Your task to perform on an android device: allow cookies in the chrome app Image 0: 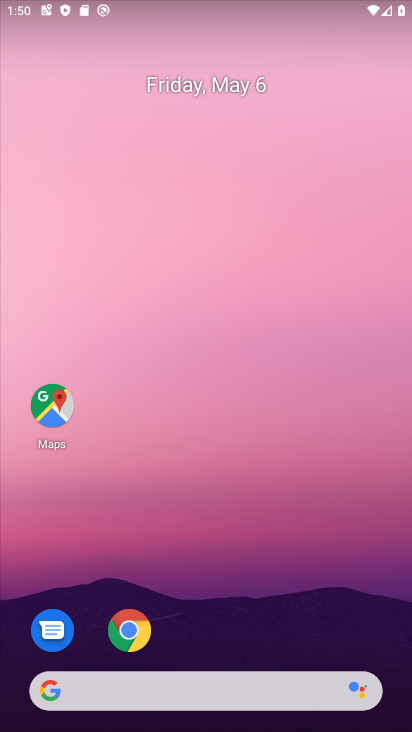
Step 0: click (115, 632)
Your task to perform on an android device: allow cookies in the chrome app Image 1: 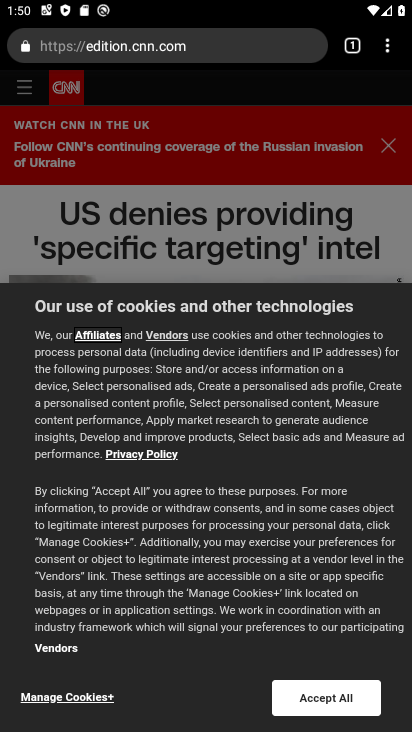
Step 1: drag from (385, 40) to (240, 515)
Your task to perform on an android device: allow cookies in the chrome app Image 2: 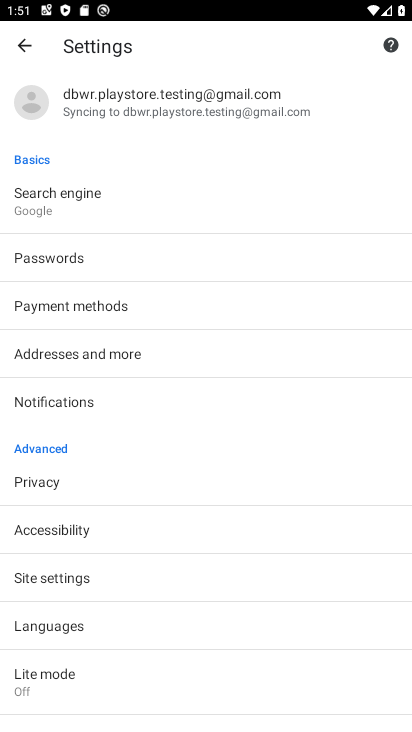
Step 2: click (144, 579)
Your task to perform on an android device: allow cookies in the chrome app Image 3: 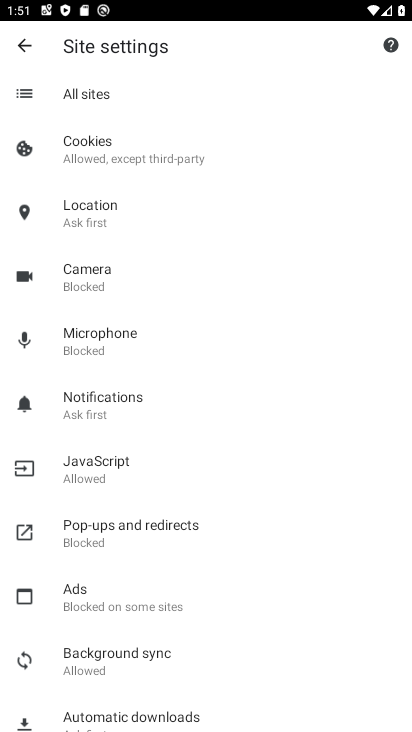
Step 3: click (93, 145)
Your task to perform on an android device: allow cookies in the chrome app Image 4: 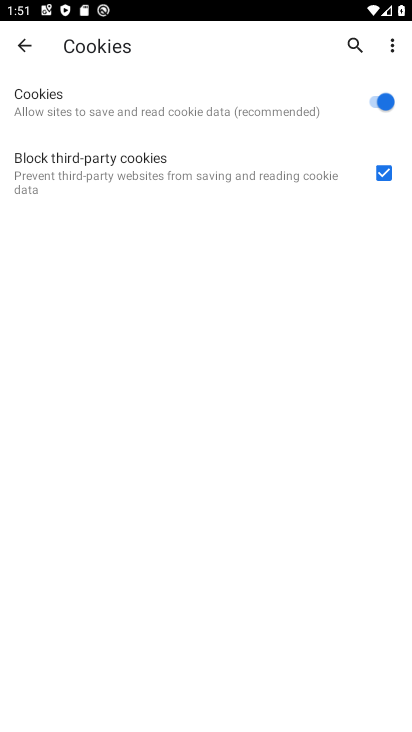
Step 4: task complete